Your task to perform on an android device: toggle notifications settings in the gmail app Image 0: 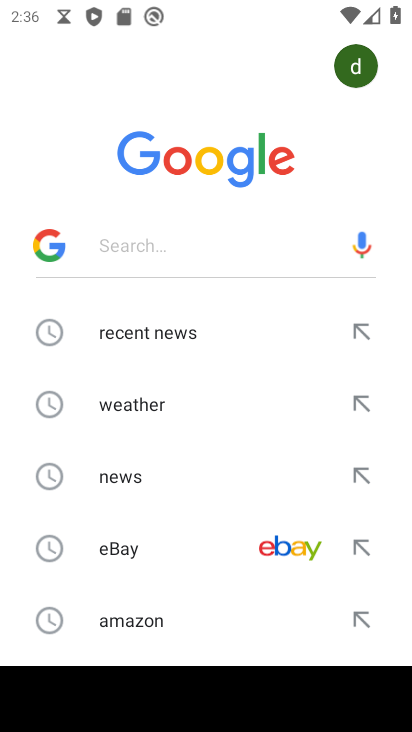
Step 0: press home button
Your task to perform on an android device: toggle notifications settings in the gmail app Image 1: 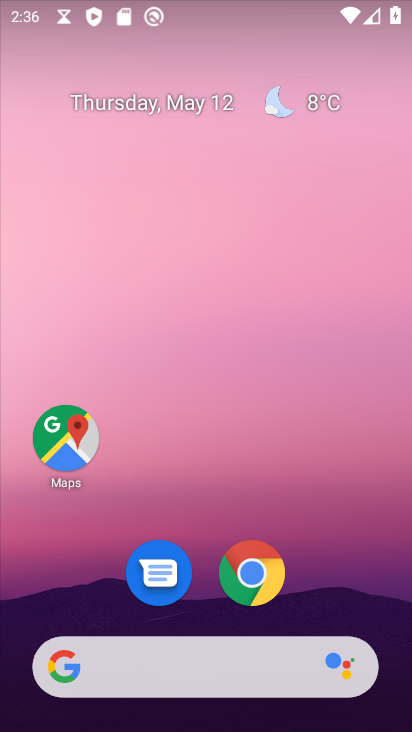
Step 1: drag from (298, 559) to (352, 86)
Your task to perform on an android device: toggle notifications settings in the gmail app Image 2: 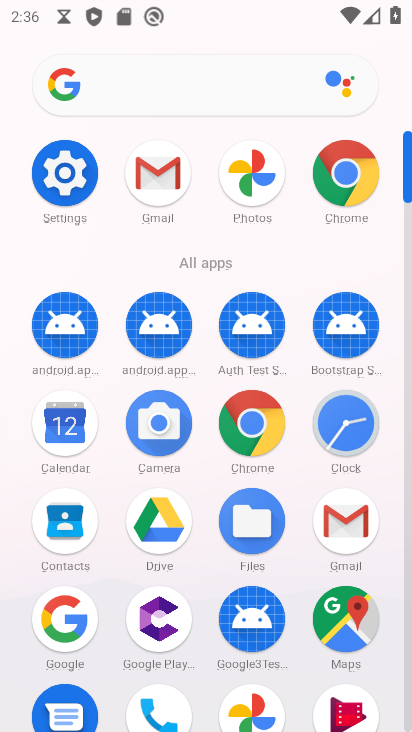
Step 2: click (346, 521)
Your task to perform on an android device: toggle notifications settings in the gmail app Image 3: 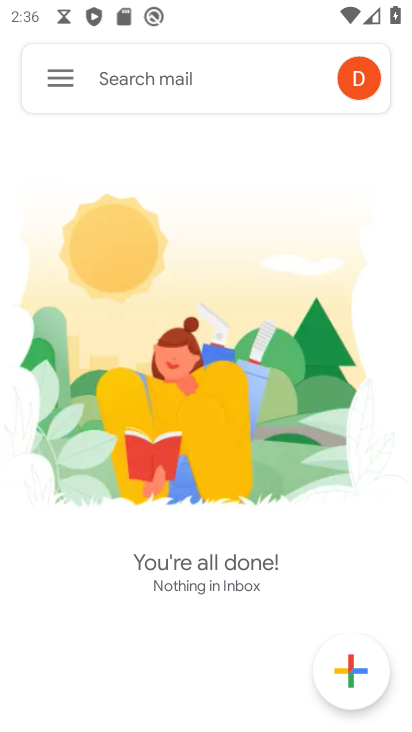
Step 3: press back button
Your task to perform on an android device: toggle notifications settings in the gmail app Image 4: 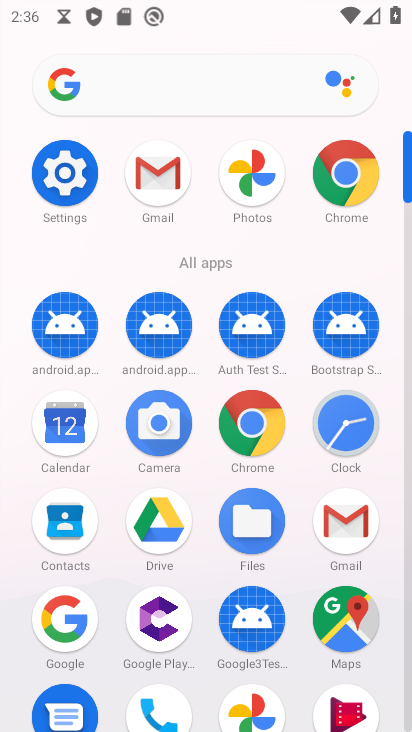
Step 4: click (356, 513)
Your task to perform on an android device: toggle notifications settings in the gmail app Image 5: 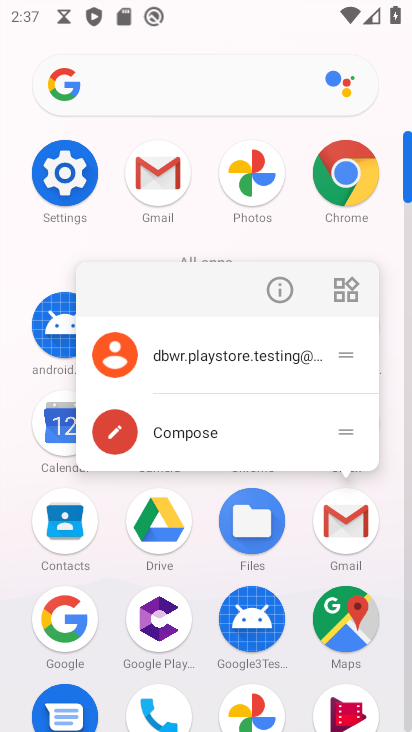
Step 5: click (283, 291)
Your task to perform on an android device: toggle notifications settings in the gmail app Image 6: 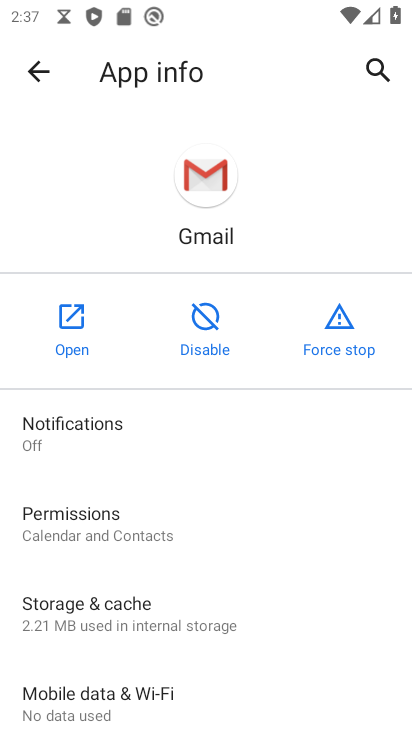
Step 6: click (70, 431)
Your task to perform on an android device: toggle notifications settings in the gmail app Image 7: 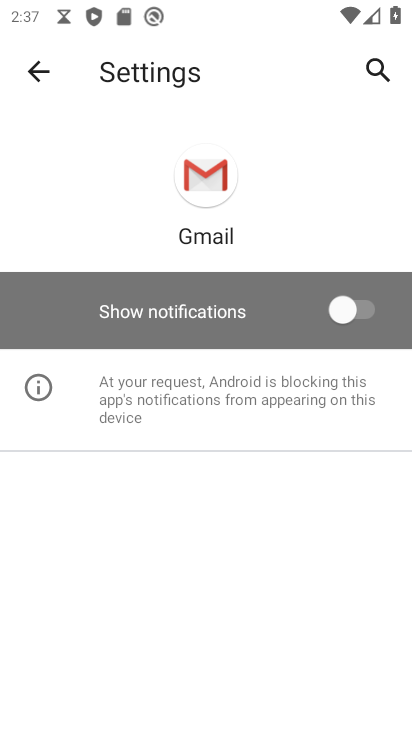
Step 7: click (348, 300)
Your task to perform on an android device: toggle notifications settings in the gmail app Image 8: 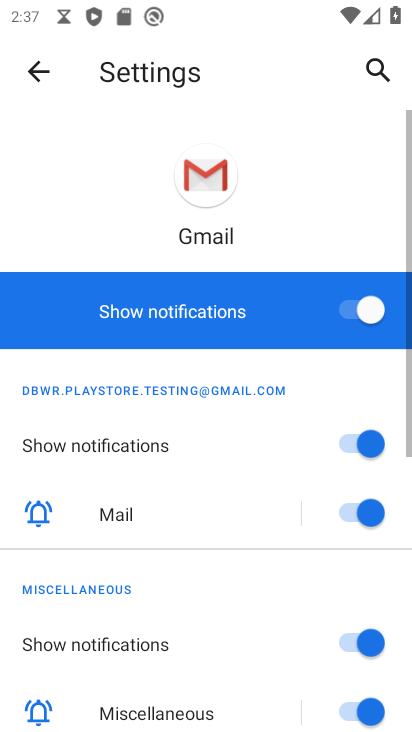
Step 8: task complete